Your task to perform on an android device: Go to wifi settings Image 0: 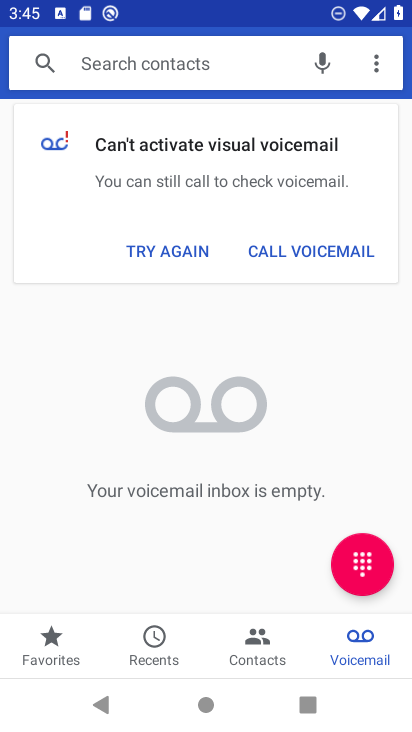
Step 0: press home button
Your task to perform on an android device: Go to wifi settings Image 1: 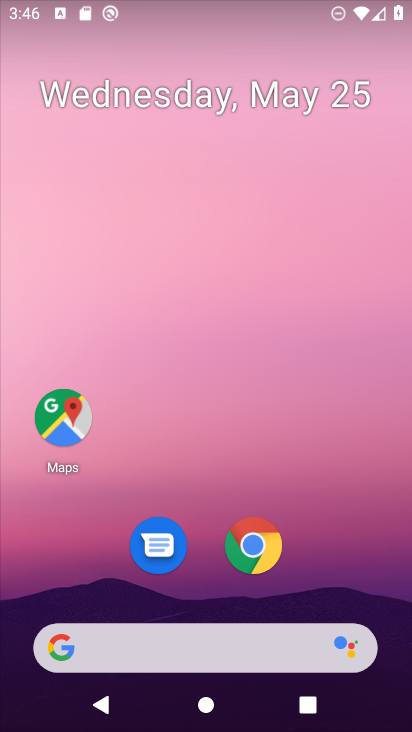
Step 1: drag from (378, 611) to (285, 233)
Your task to perform on an android device: Go to wifi settings Image 2: 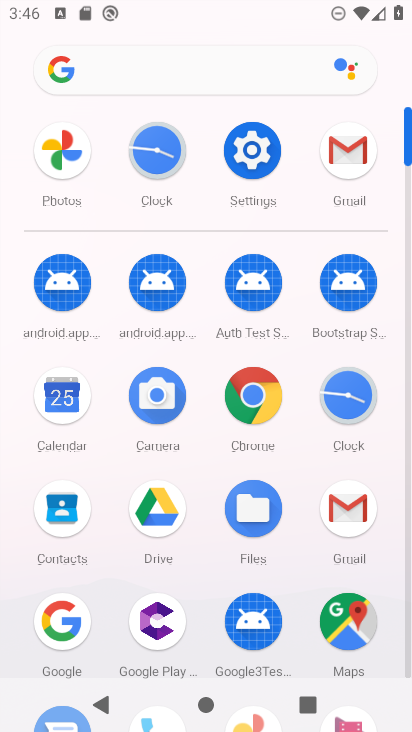
Step 2: click (260, 153)
Your task to perform on an android device: Go to wifi settings Image 3: 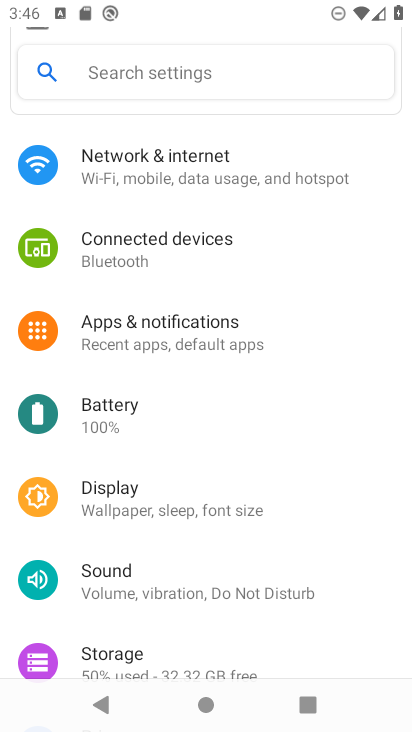
Step 3: click (208, 191)
Your task to perform on an android device: Go to wifi settings Image 4: 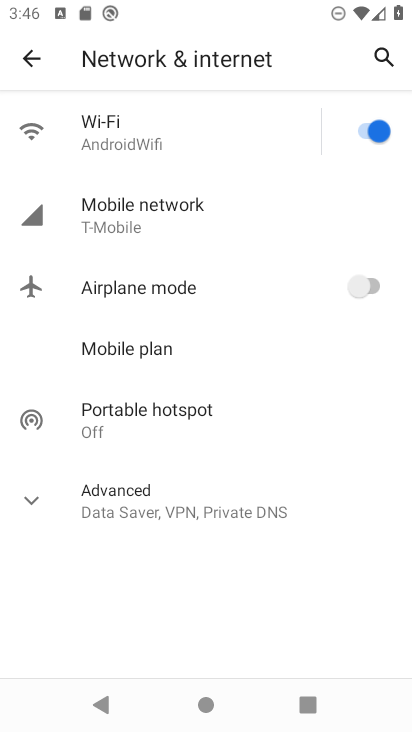
Step 4: click (185, 145)
Your task to perform on an android device: Go to wifi settings Image 5: 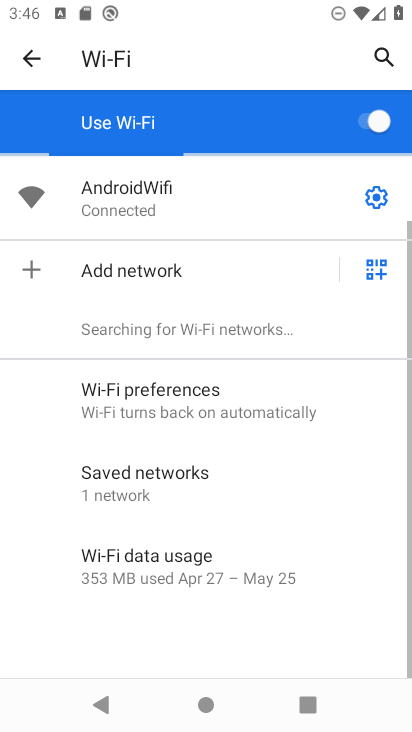
Step 5: task complete